Your task to perform on an android device: check the backup settings in the google photos Image 0: 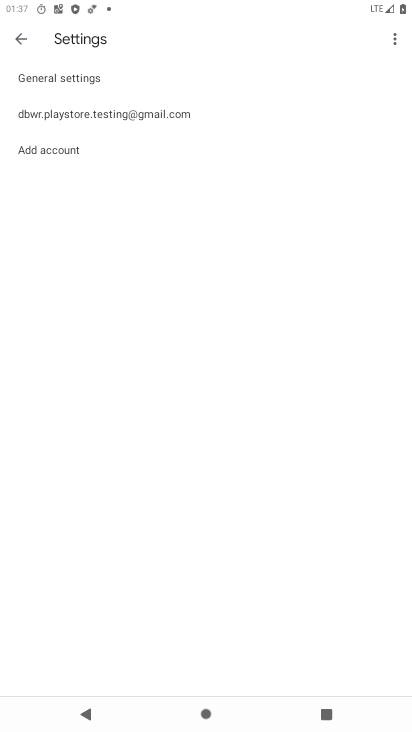
Step 0: press home button
Your task to perform on an android device: check the backup settings in the google photos Image 1: 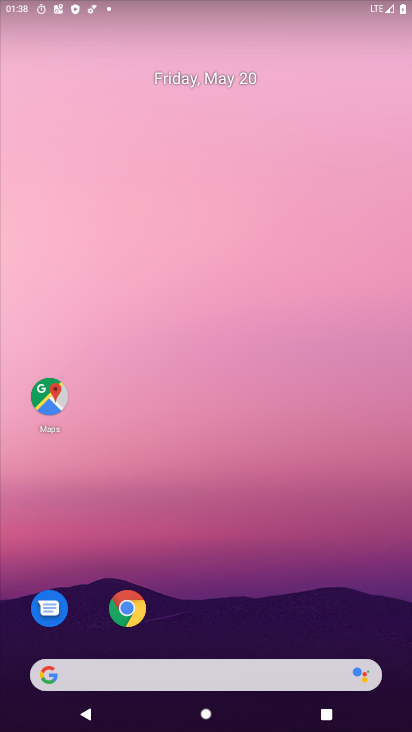
Step 1: drag from (345, 587) to (184, 73)
Your task to perform on an android device: check the backup settings in the google photos Image 2: 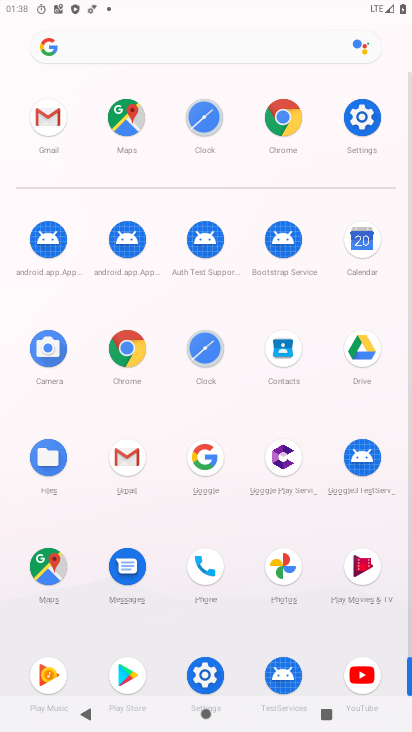
Step 2: click (292, 563)
Your task to perform on an android device: check the backup settings in the google photos Image 3: 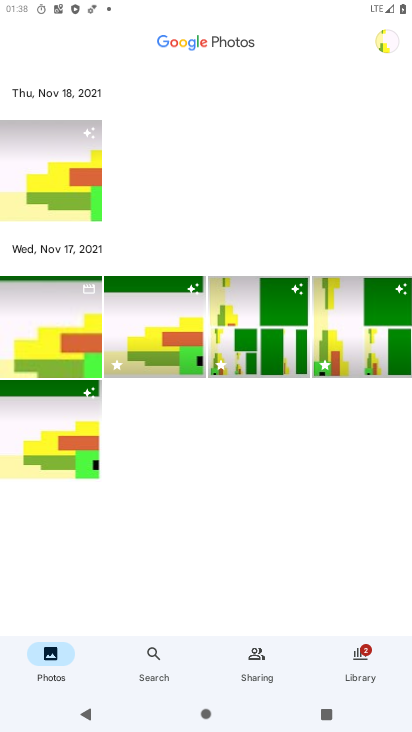
Step 3: click (358, 657)
Your task to perform on an android device: check the backup settings in the google photos Image 4: 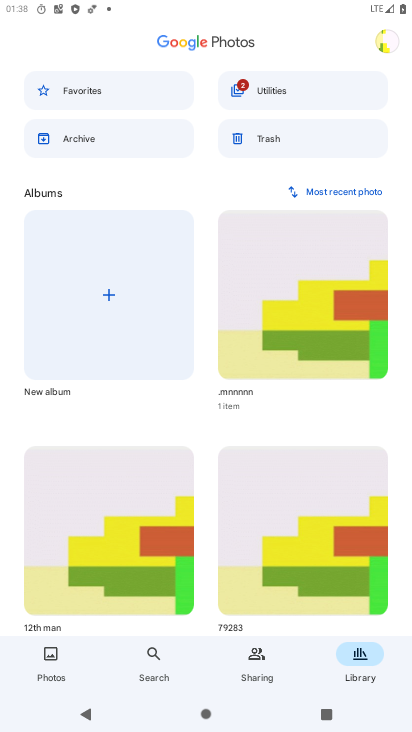
Step 4: click (383, 33)
Your task to perform on an android device: check the backup settings in the google photos Image 5: 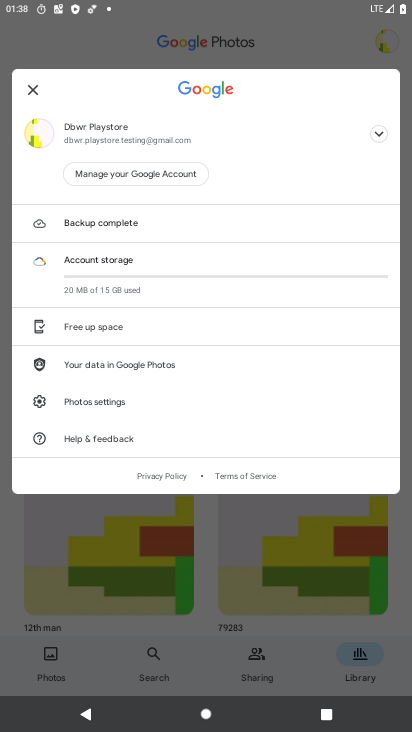
Step 5: click (109, 395)
Your task to perform on an android device: check the backup settings in the google photos Image 6: 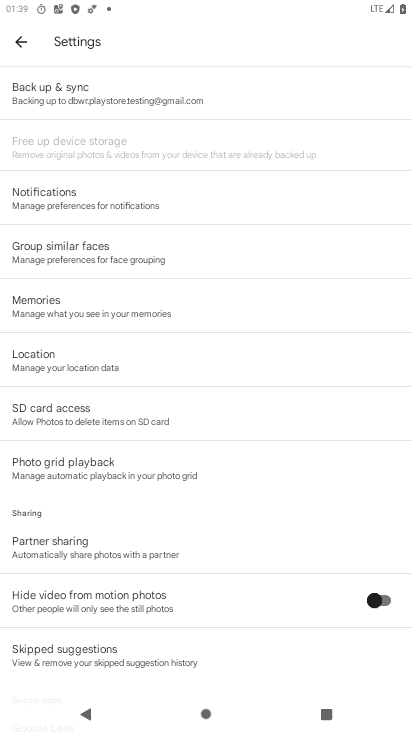
Step 6: click (116, 103)
Your task to perform on an android device: check the backup settings in the google photos Image 7: 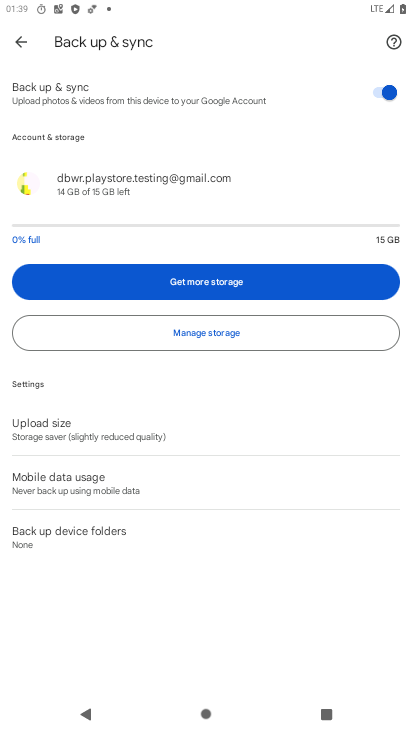
Step 7: task complete